Your task to perform on an android device: open chrome and create a bookmark for the current page Image 0: 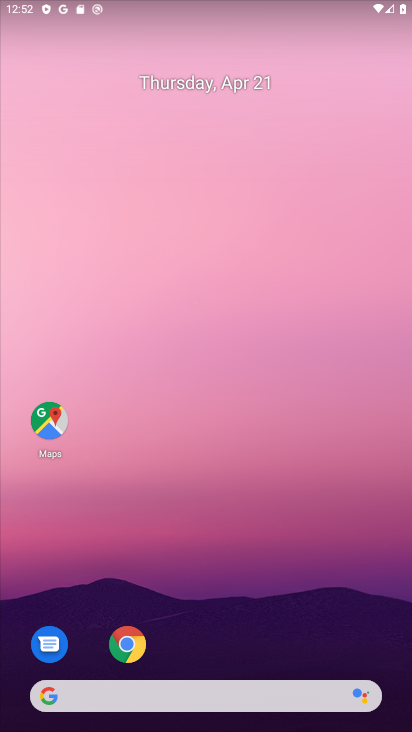
Step 0: drag from (249, 617) to (265, 102)
Your task to perform on an android device: open chrome and create a bookmark for the current page Image 1: 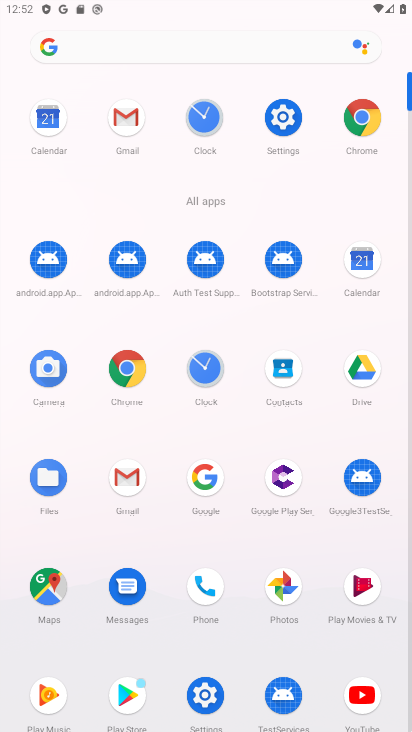
Step 1: click (364, 117)
Your task to perform on an android device: open chrome and create a bookmark for the current page Image 2: 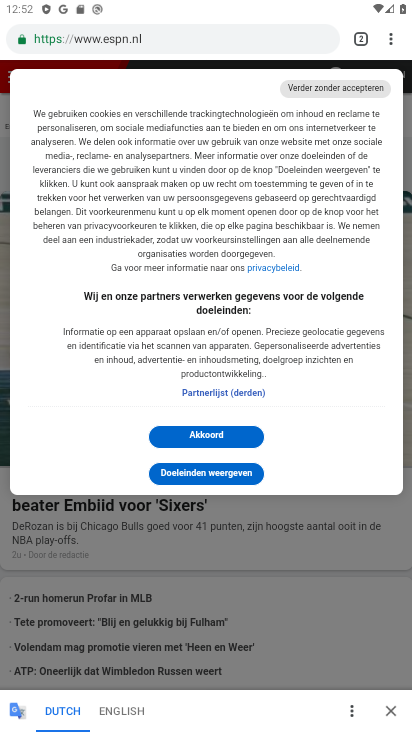
Step 2: click (389, 41)
Your task to perform on an android device: open chrome and create a bookmark for the current page Image 3: 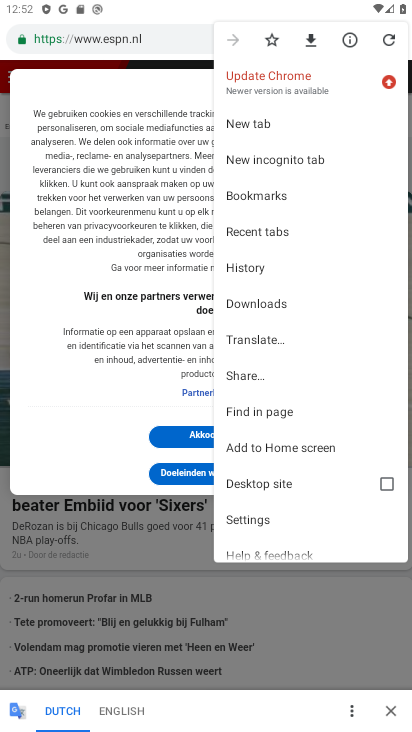
Step 3: click (272, 40)
Your task to perform on an android device: open chrome and create a bookmark for the current page Image 4: 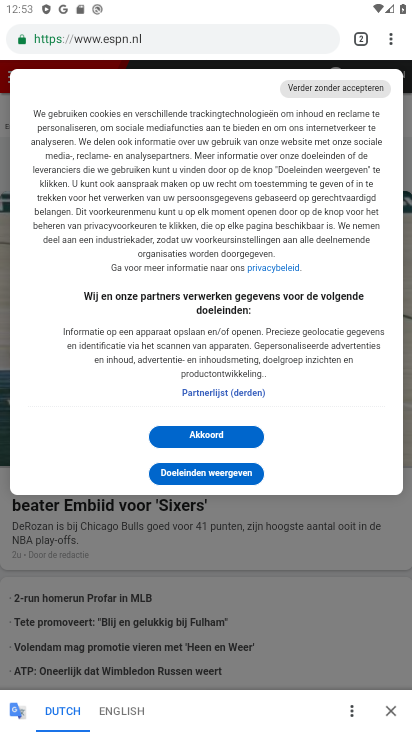
Step 4: task complete